Your task to perform on an android device: show emergency info Image 0: 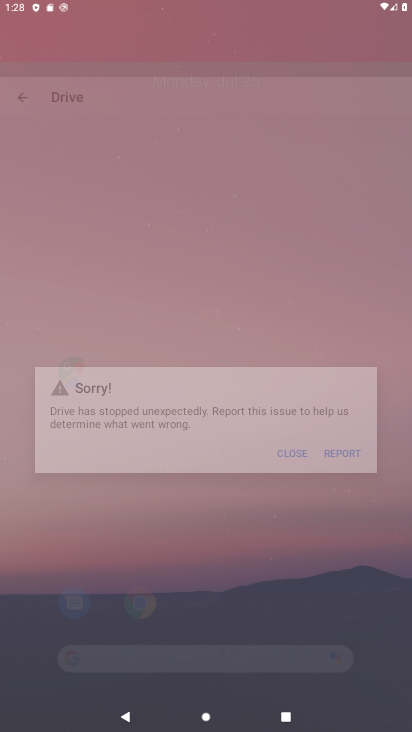
Step 0: click (215, 401)
Your task to perform on an android device: show emergency info Image 1: 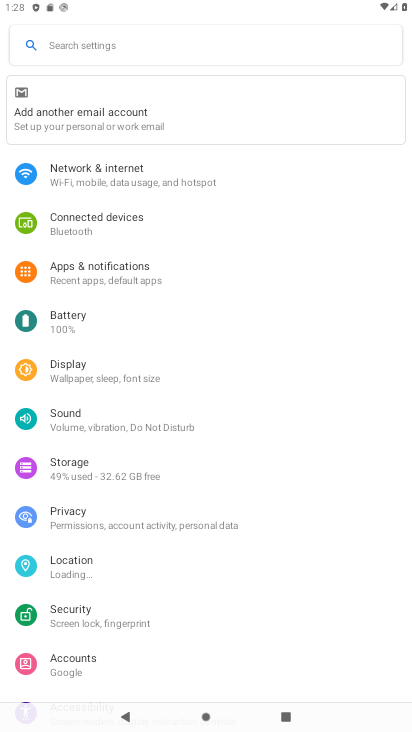
Step 1: click (219, 222)
Your task to perform on an android device: show emergency info Image 2: 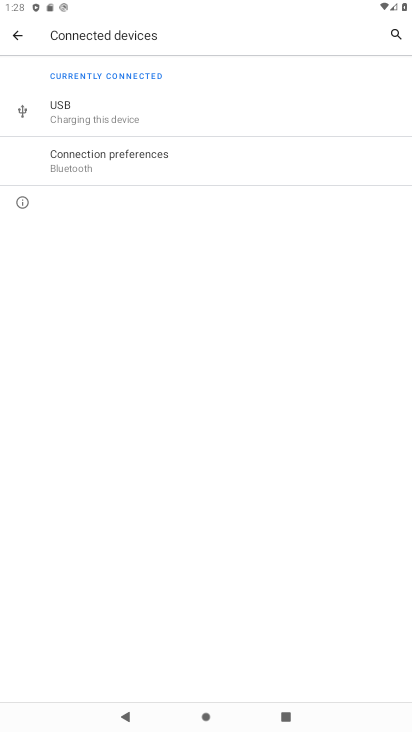
Step 2: press back button
Your task to perform on an android device: show emergency info Image 3: 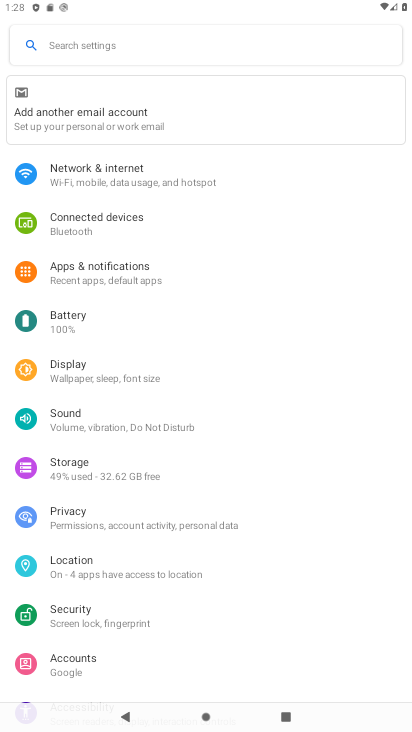
Step 3: drag from (187, 502) to (247, 246)
Your task to perform on an android device: show emergency info Image 4: 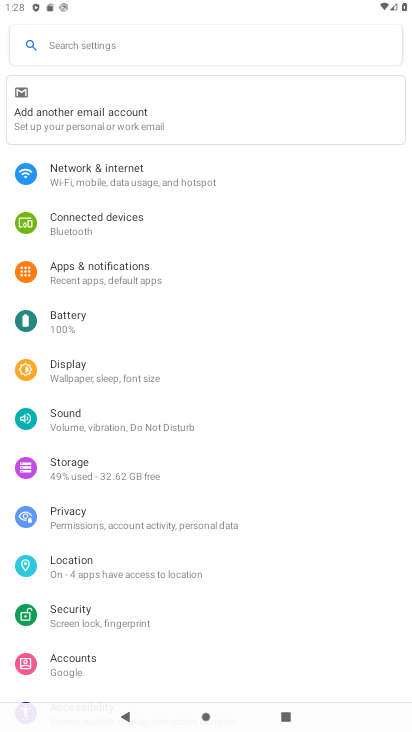
Step 4: drag from (162, 633) to (282, 141)
Your task to perform on an android device: show emergency info Image 5: 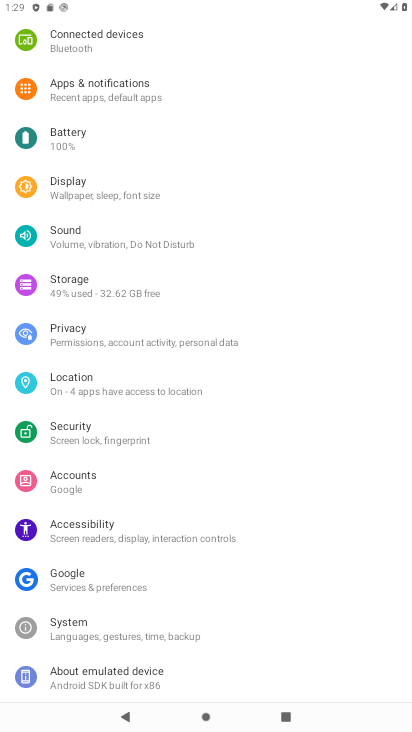
Step 5: click (94, 676)
Your task to perform on an android device: show emergency info Image 6: 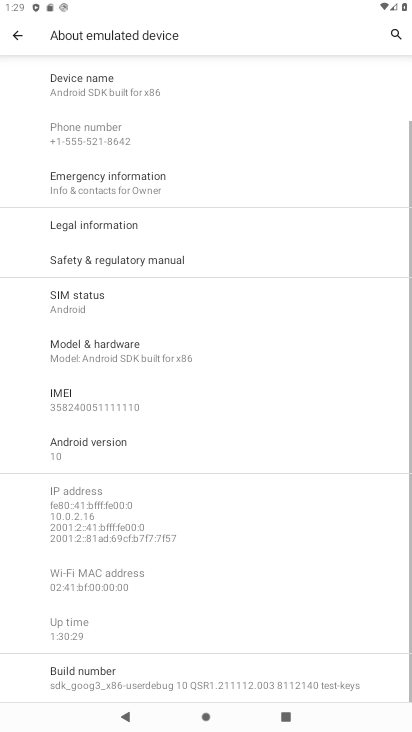
Step 6: click (122, 192)
Your task to perform on an android device: show emergency info Image 7: 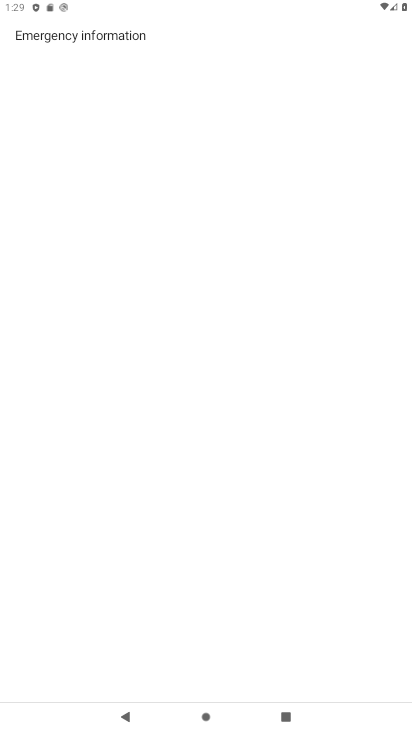
Step 7: task complete